Your task to perform on an android device: open app "Nova Launcher" (install if not already installed) Image 0: 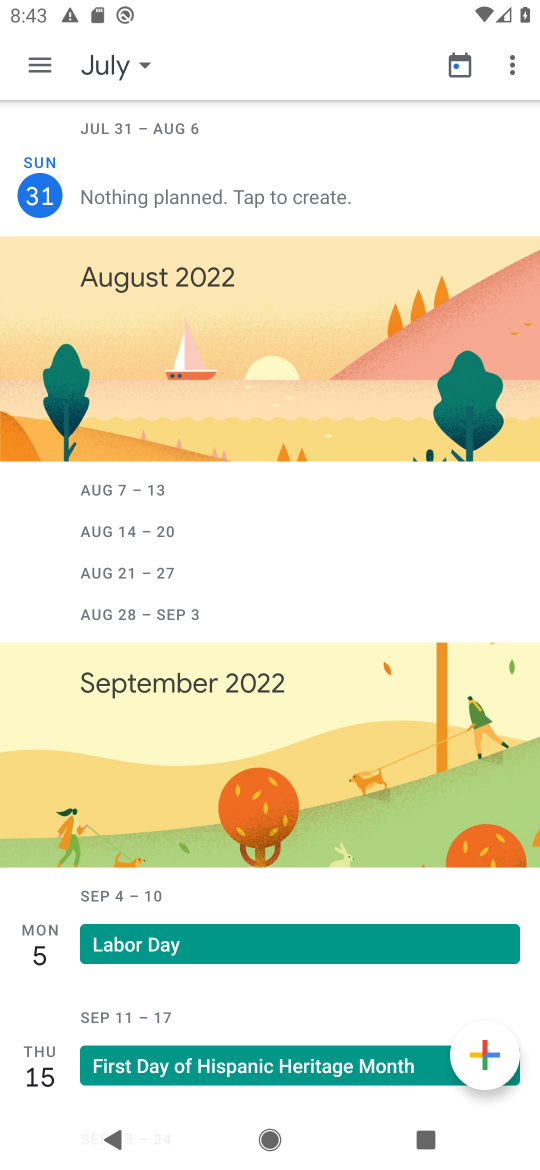
Step 0: press home button
Your task to perform on an android device: open app "Nova Launcher" (install if not already installed) Image 1: 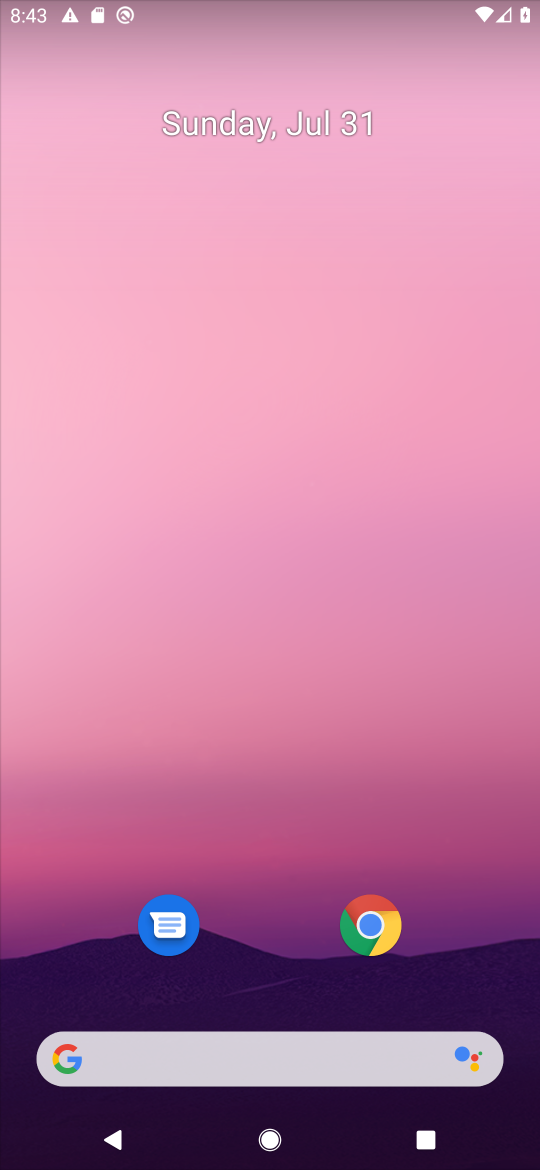
Step 1: drag from (293, 927) to (106, 67)
Your task to perform on an android device: open app "Nova Launcher" (install if not already installed) Image 2: 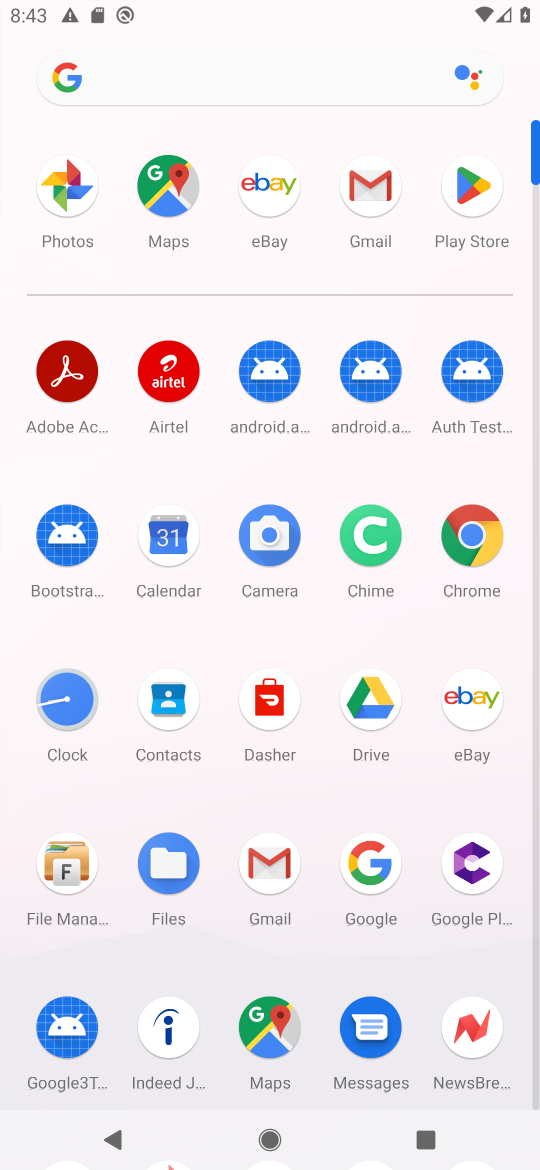
Step 2: click (469, 204)
Your task to perform on an android device: open app "Nova Launcher" (install if not already installed) Image 3: 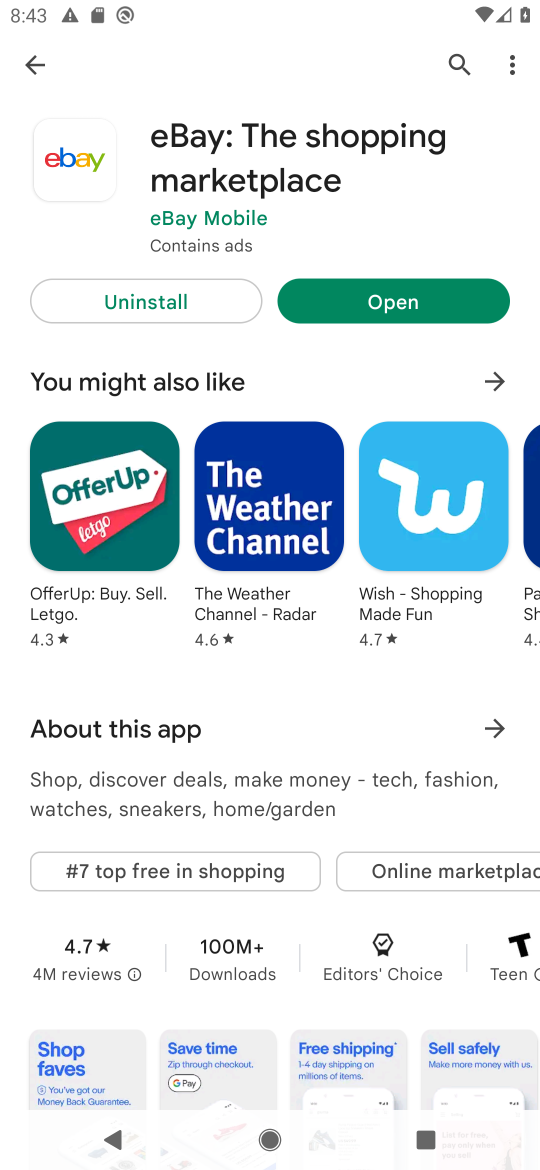
Step 3: click (450, 71)
Your task to perform on an android device: open app "Nova Launcher" (install if not already installed) Image 4: 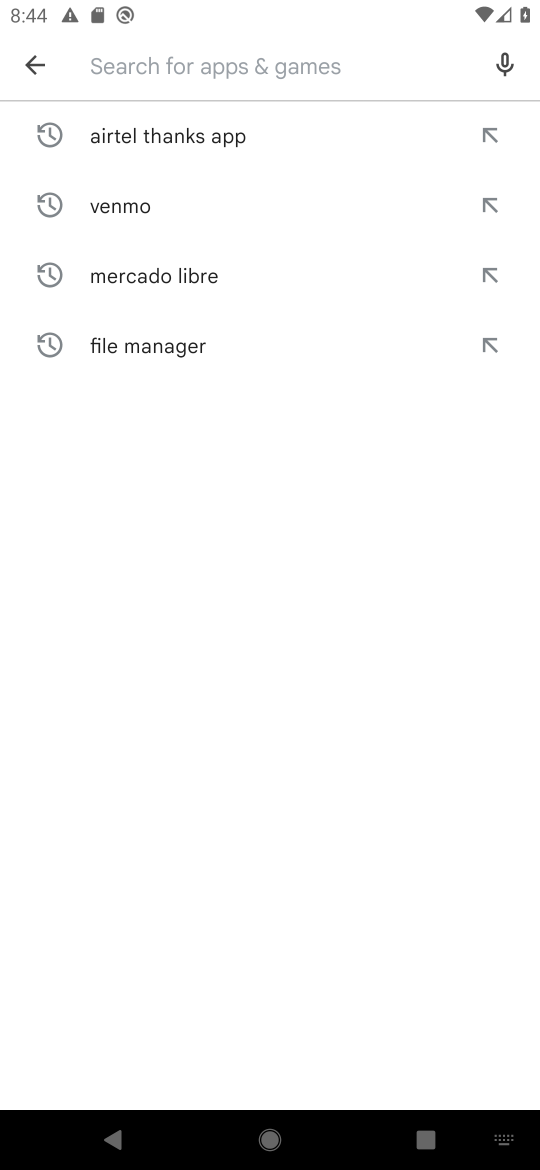
Step 4: type "nova launcher"
Your task to perform on an android device: open app "Nova Launcher" (install if not already installed) Image 5: 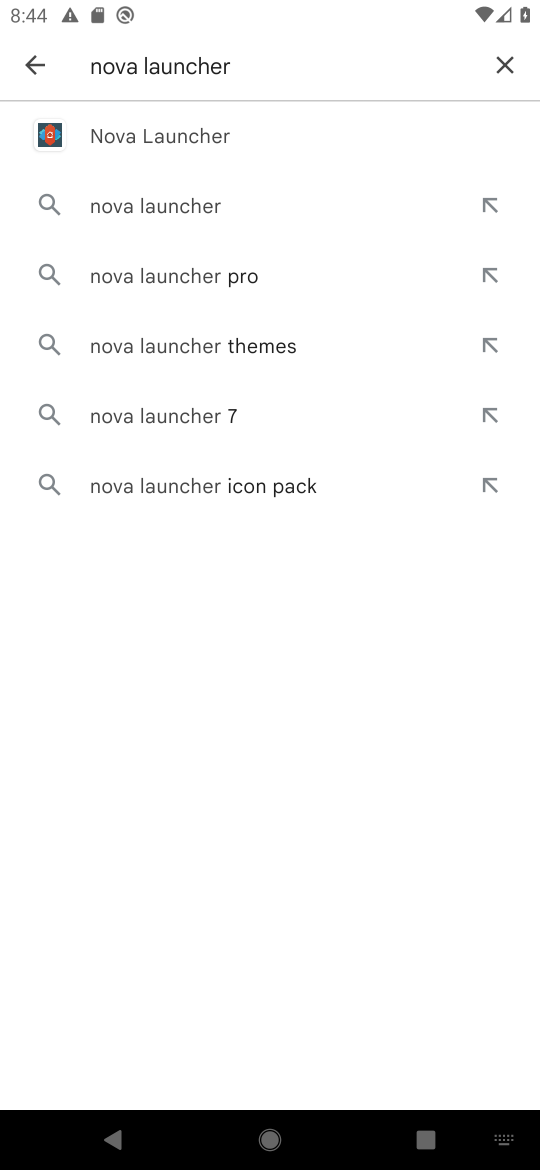
Step 5: click (202, 137)
Your task to perform on an android device: open app "Nova Launcher" (install if not already installed) Image 6: 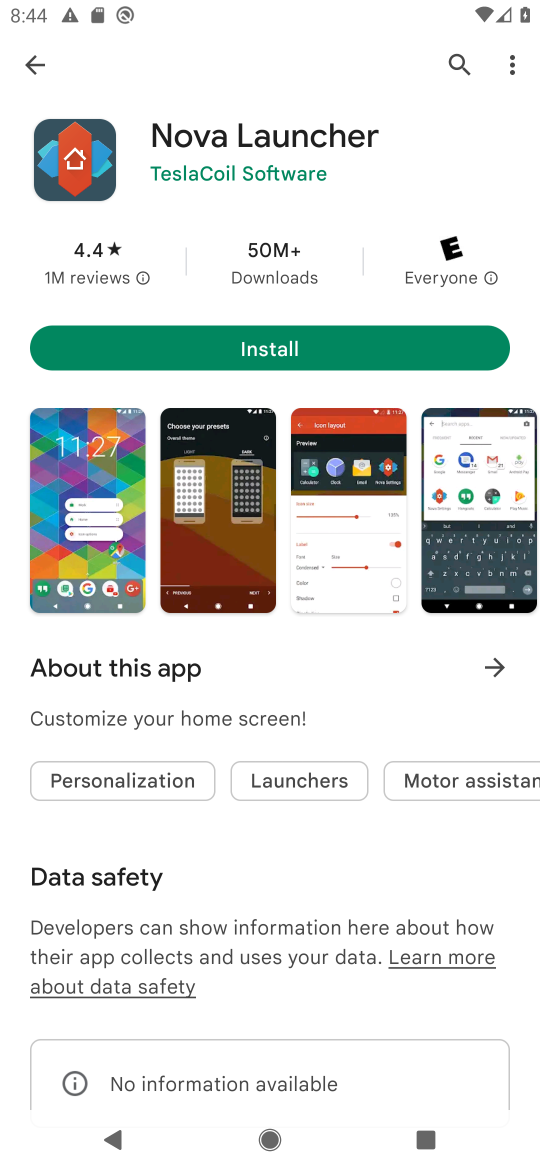
Step 6: click (247, 356)
Your task to perform on an android device: open app "Nova Launcher" (install if not already installed) Image 7: 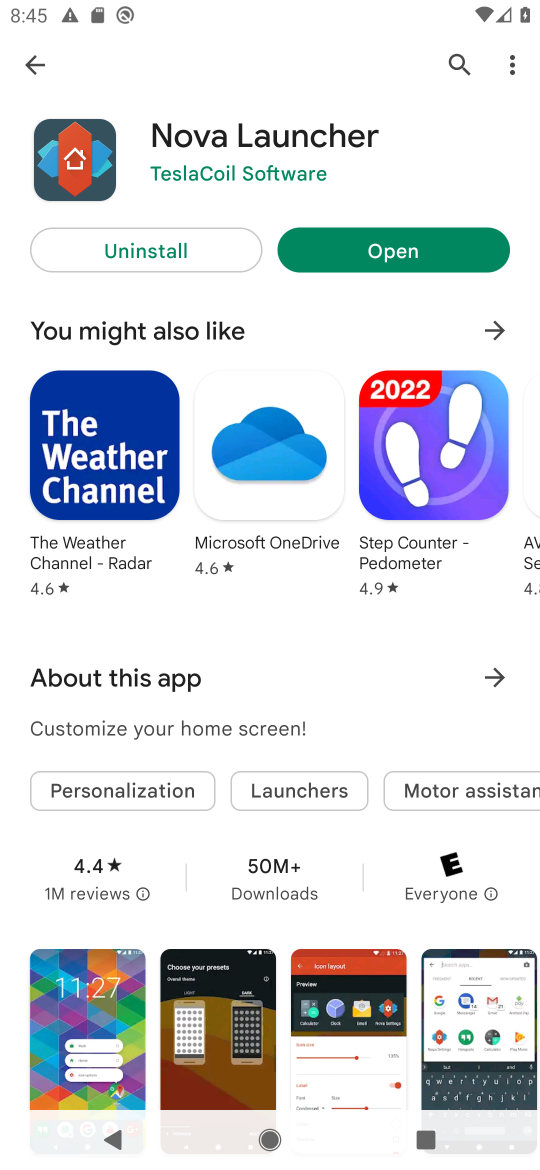
Step 7: click (377, 244)
Your task to perform on an android device: open app "Nova Launcher" (install if not already installed) Image 8: 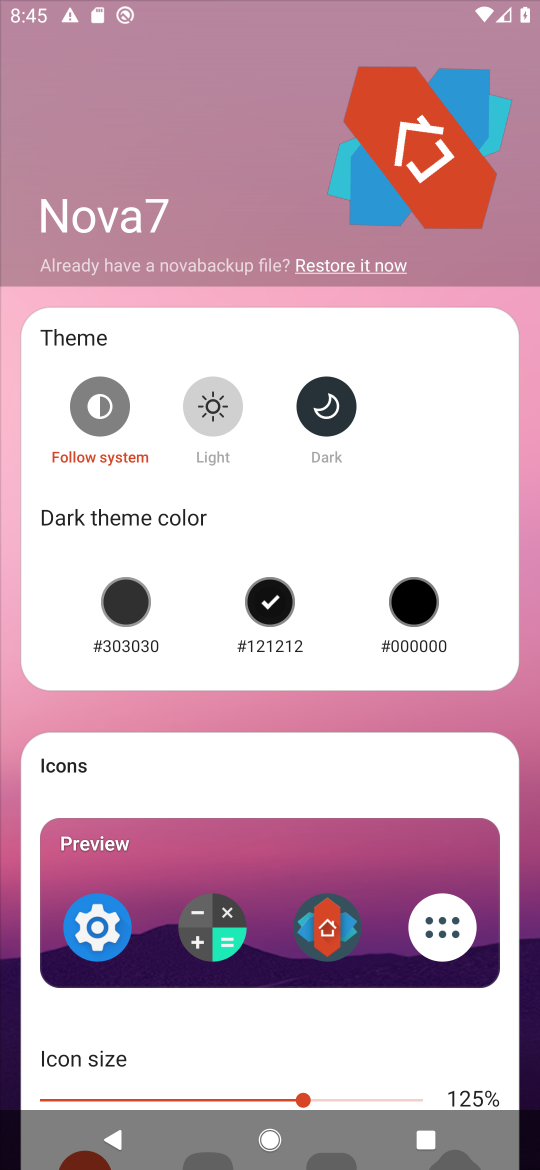
Step 8: task complete